Your task to perform on an android device: turn off picture-in-picture Image 0: 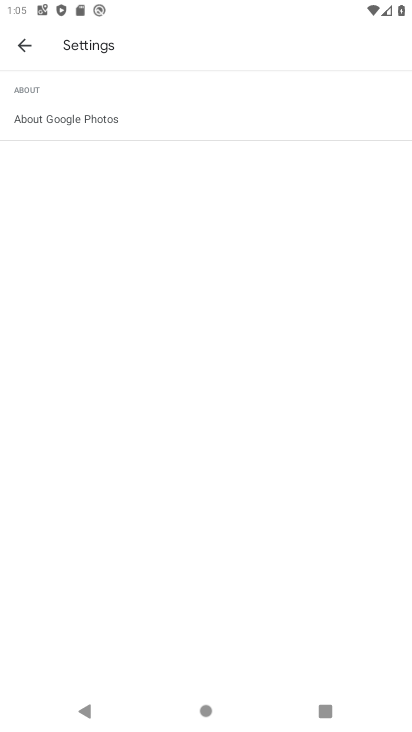
Step 0: press home button
Your task to perform on an android device: turn off picture-in-picture Image 1: 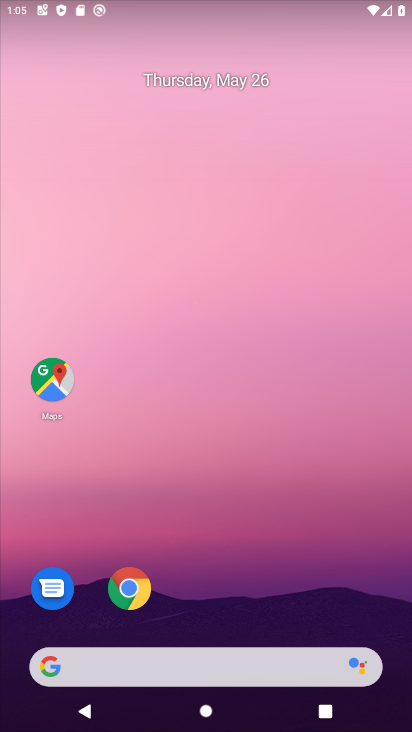
Step 1: click (119, 589)
Your task to perform on an android device: turn off picture-in-picture Image 2: 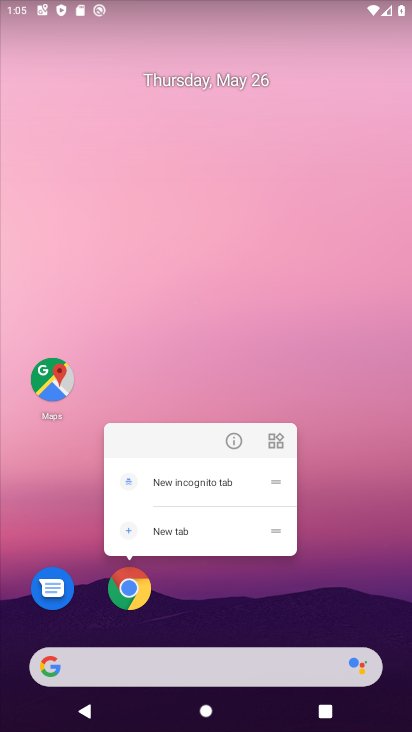
Step 2: click (234, 441)
Your task to perform on an android device: turn off picture-in-picture Image 3: 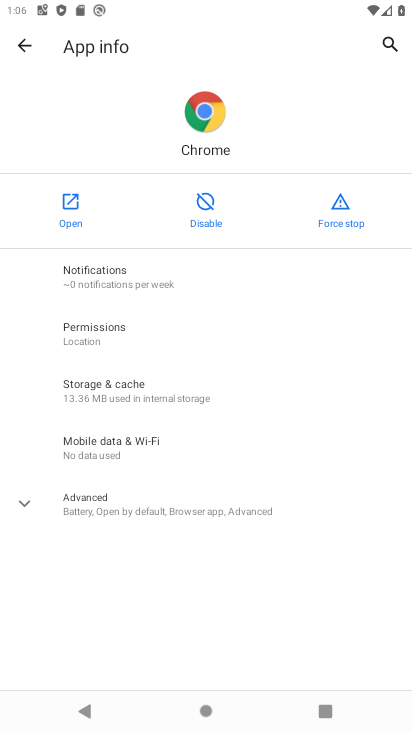
Step 3: click (44, 504)
Your task to perform on an android device: turn off picture-in-picture Image 4: 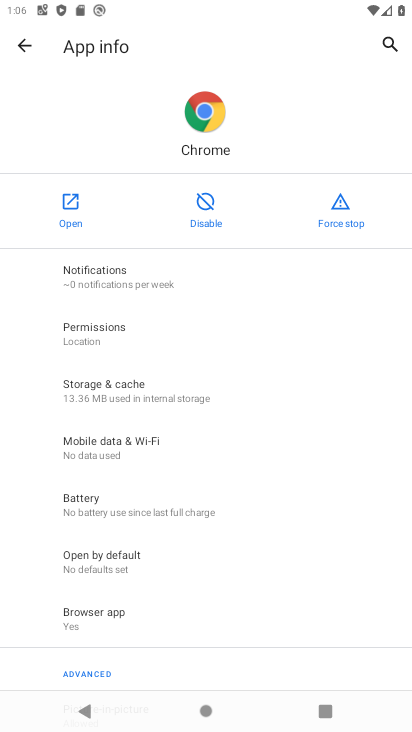
Step 4: drag from (226, 587) to (234, 340)
Your task to perform on an android device: turn off picture-in-picture Image 5: 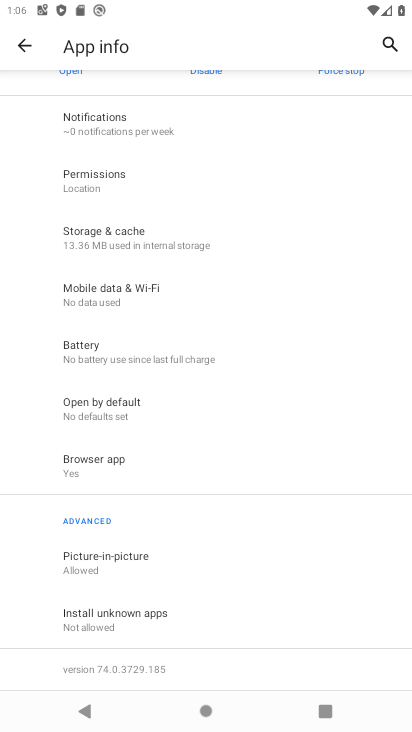
Step 5: click (101, 557)
Your task to perform on an android device: turn off picture-in-picture Image 6: 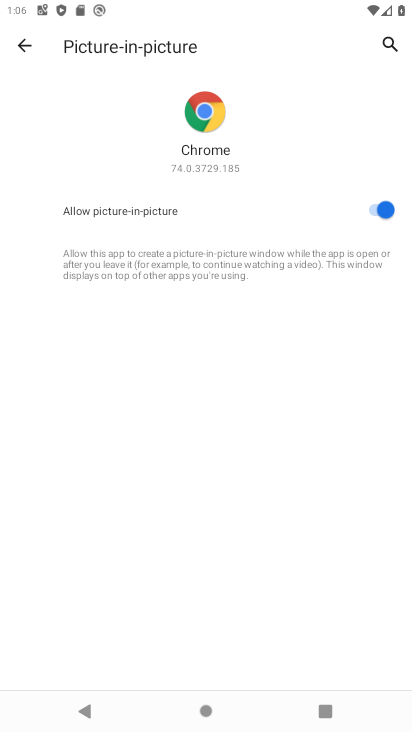
Step 6: click (370, 203)
Your task to perform on an android device: turn off picture-in-picture Image 7: 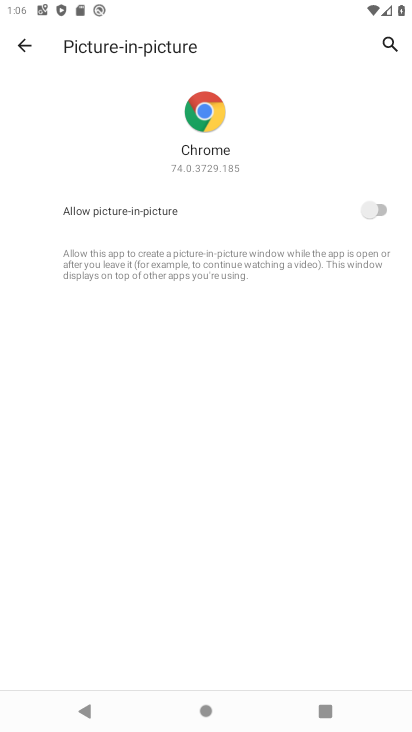
Step 7: task complete